Your task to perform on an android device: Go to location settings Image 0: 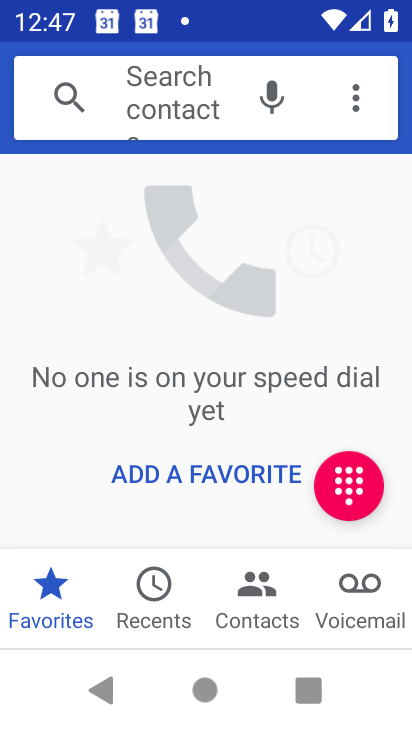
Step 0: press home button
Your task to perform on an android device: Go to location settings Image 1: 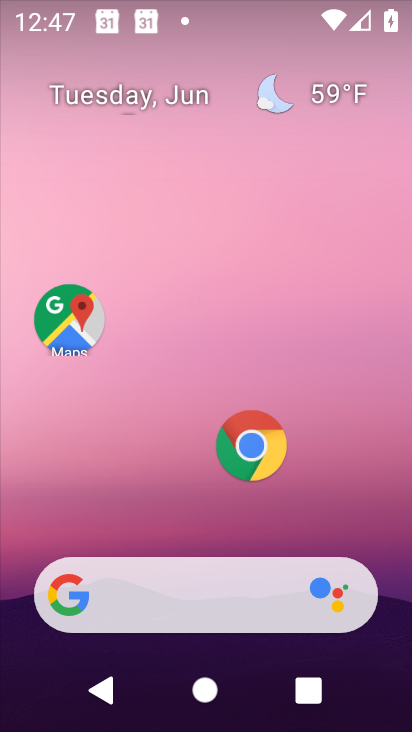
Step 1: drag from (238, 475) to (206, 124)
Your task to perform on an android device: Go to location settings Image 2: 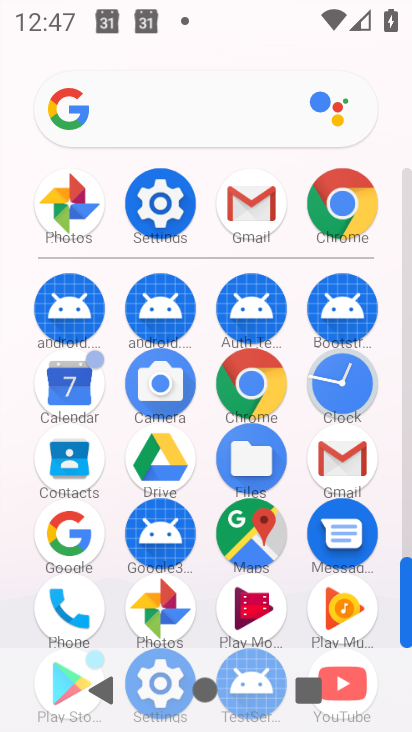
Step 2: click (164, 220)
Your task to perform on an android device: Go to location settings Image 3: 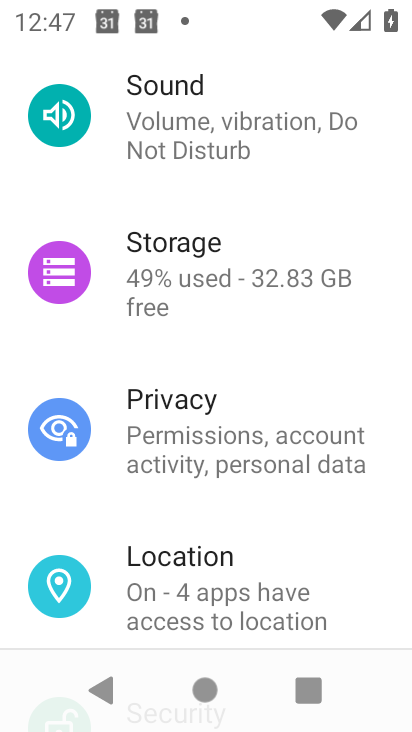
Step 3: click (127, 598)
Your task to perform on an android device: Go to location settings Image 4: 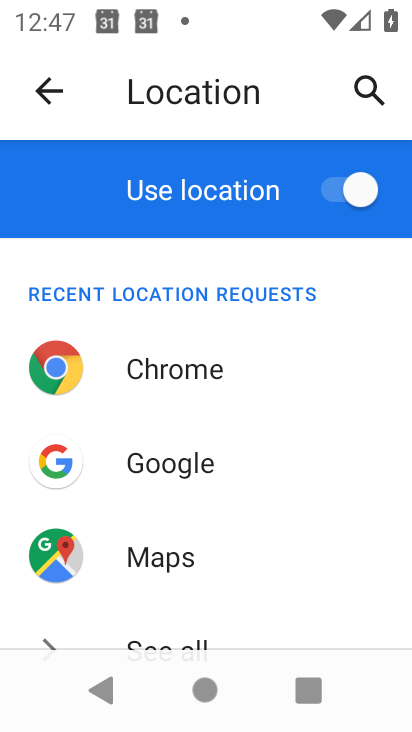
Step 4: task complete